Your task to perform on an android device: change keyboard looks Image 0: 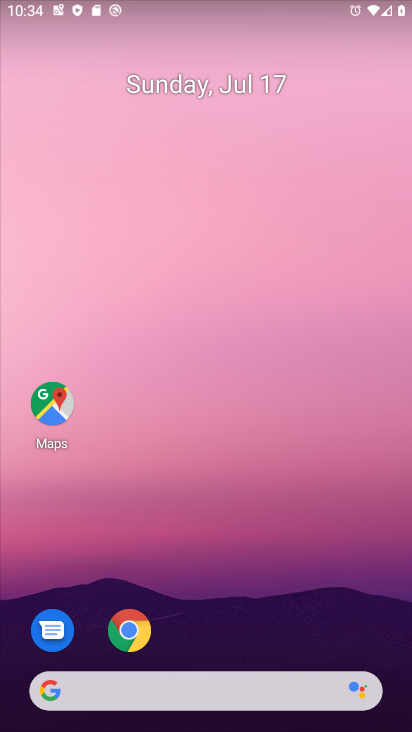
Step 0: drag from (339, 626) to (332, 123)
Your task to perform on an android device: change keyboard looks Image 1: 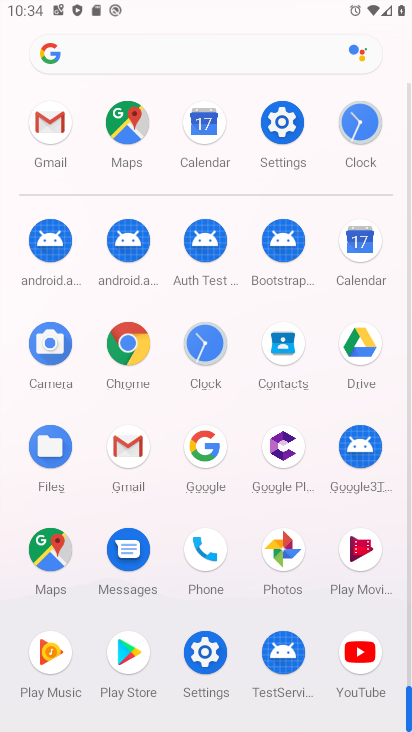
Step 1: click (285, 126)
Your task to perform on an android device: change keyboard looks Image 2: 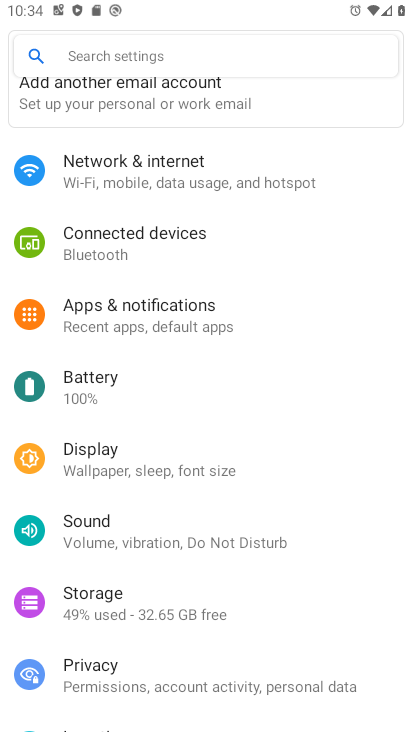
Step 2: drag from (336, 497) to (339, 416)
Your task to perform on an android device: change keyboard looks Image 3: 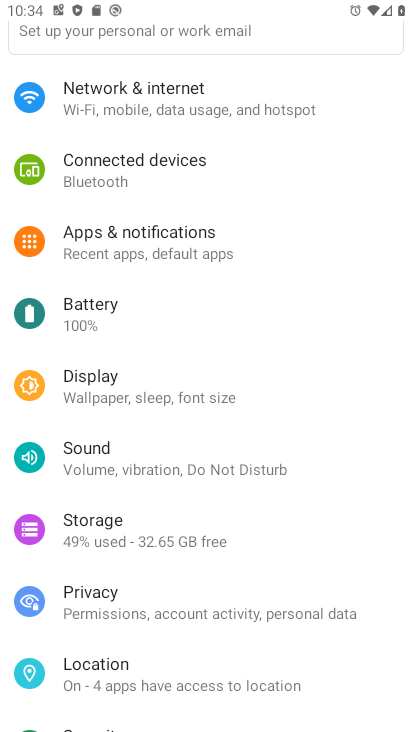
Step 3: drag from (333, 533) to (348, 444)
Your task to perform on an android device: change keyboard looks Image 4: 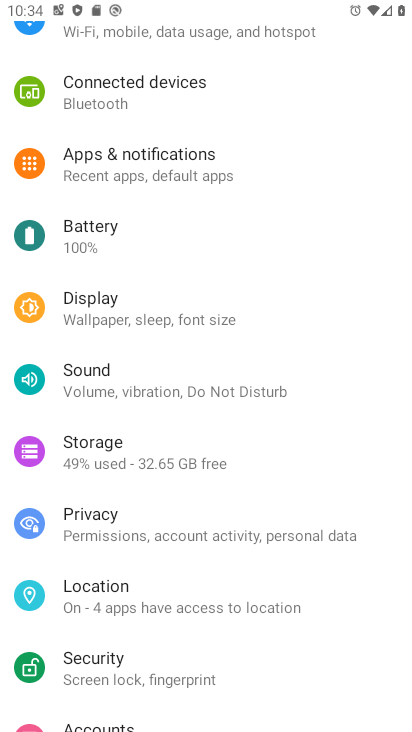
Step 4: drag from (356, 581) to (367, 471)
Your task to perform on an android device: change keyboard looks Image 5: 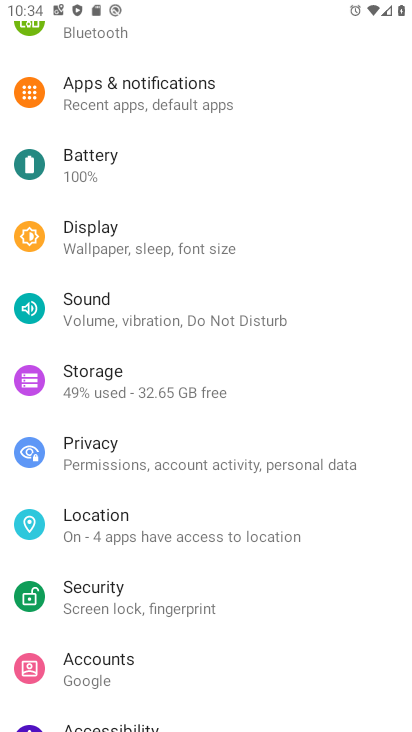
Step 5: drag from (350, 575) to (352, 450)
Your task to perform on an android device: change keyboard looks Image 6: 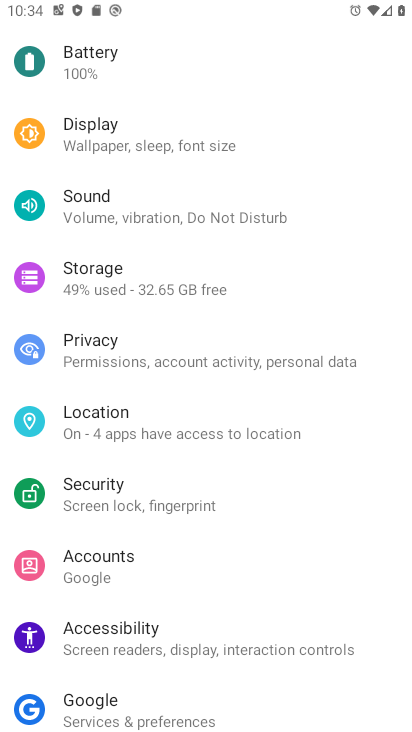
Step 6: drag from (305, 539) to (333, 397)
Your task to perform on an android device: change keyboard looks Image 7: 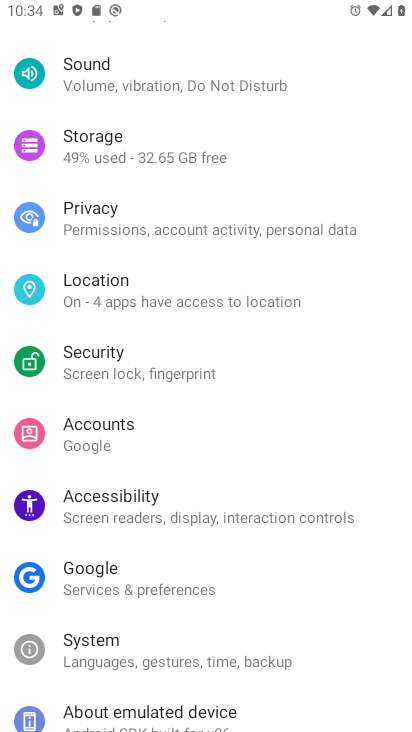
Step 7: drag from (336, 609) to (355, 498)
Your task to perform on an android device: change keyboard looks Image 8: 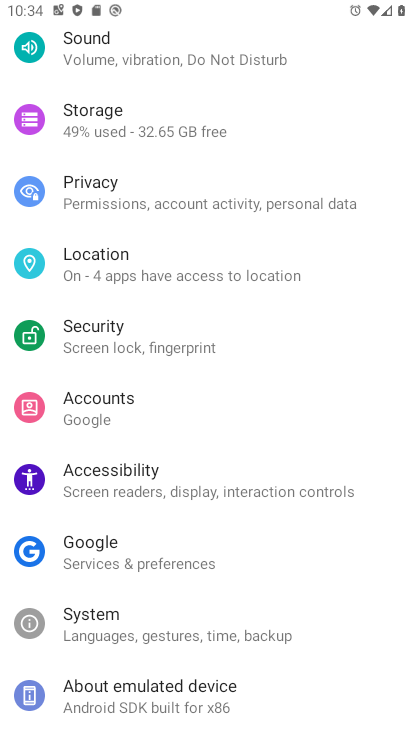
Step 8: click (261, 627)
Your task to perform on an android device: change keyboard looks Image 9: 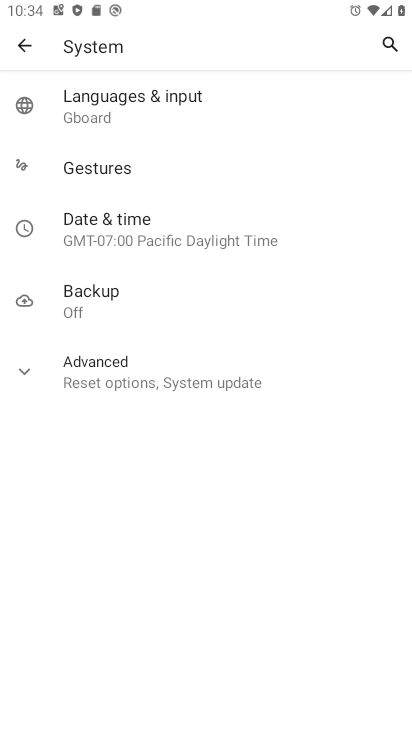
Step 9: click (130, 118)
Your task to perform on an android device: change keyboard looks Image 10: 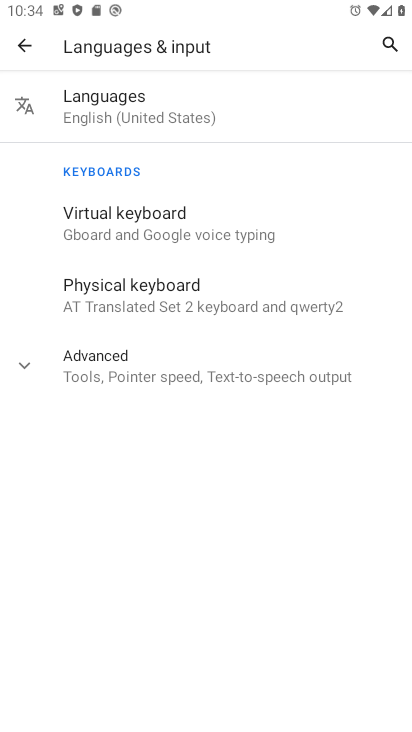
Step 10: click (181, 227)
Your task to perform on an android device: change keyboard looks Image 11: 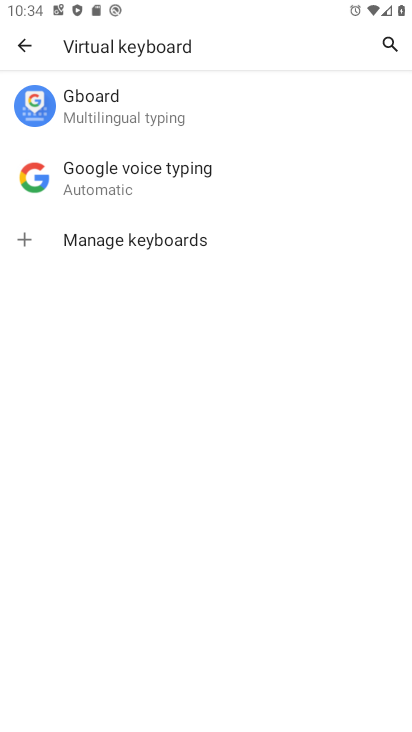
Step 11: click (112, 110)
Your task to perform on an android device: change keyboard looks Image 12: 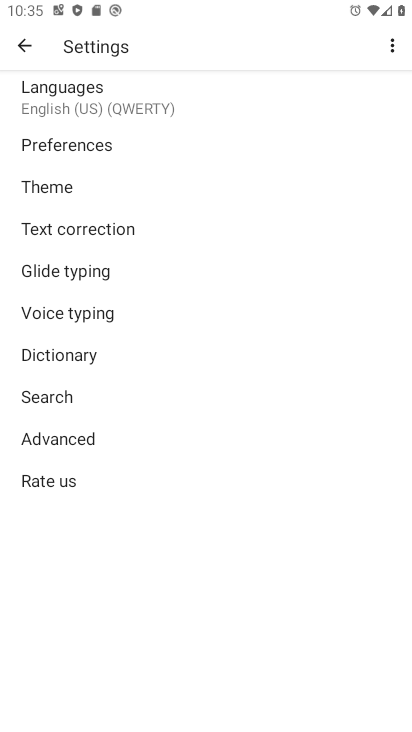
Step 12: click (89, 189)
Your task to perform on an android device: change keyboard looks Image 13: 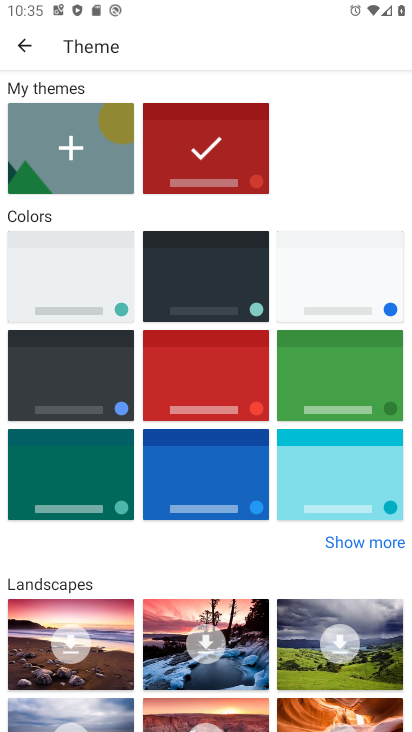
Step 13: click (340, 394)
Your task to perform on an android device: change keyboard looks Image 14: 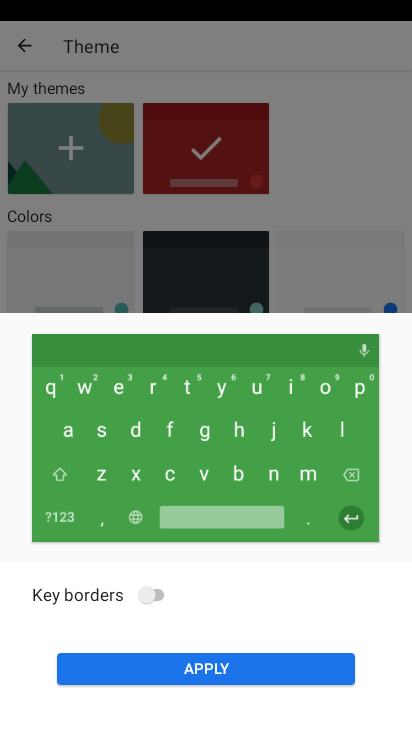
Step 14: click (282, 674)
Your task to perform on an android device: change keyboard looks Image 15: 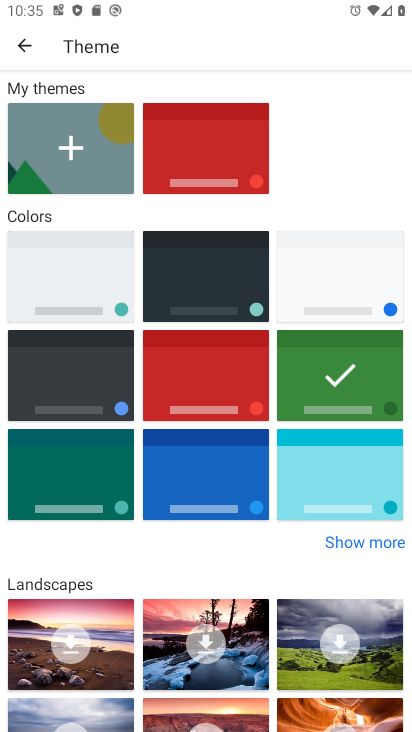
Step 15: task complete